Your task to perform on an android device: Empty the shopping cart on bestbuy.com. Add "macbook pro 13 inch" to the cart on bestbuy.com Image 0: 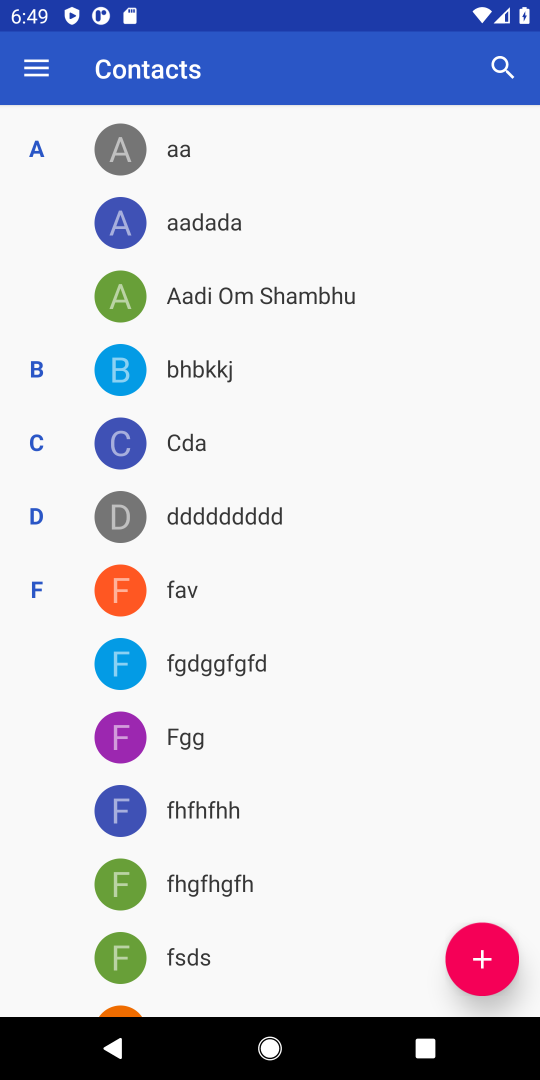
Step 0: press home button
Your task to perform on an android device: Empty the shopping cart on bestbuy.com. Add "macbook pro 13 inch" to the cart on bestbuy.com Image 1: 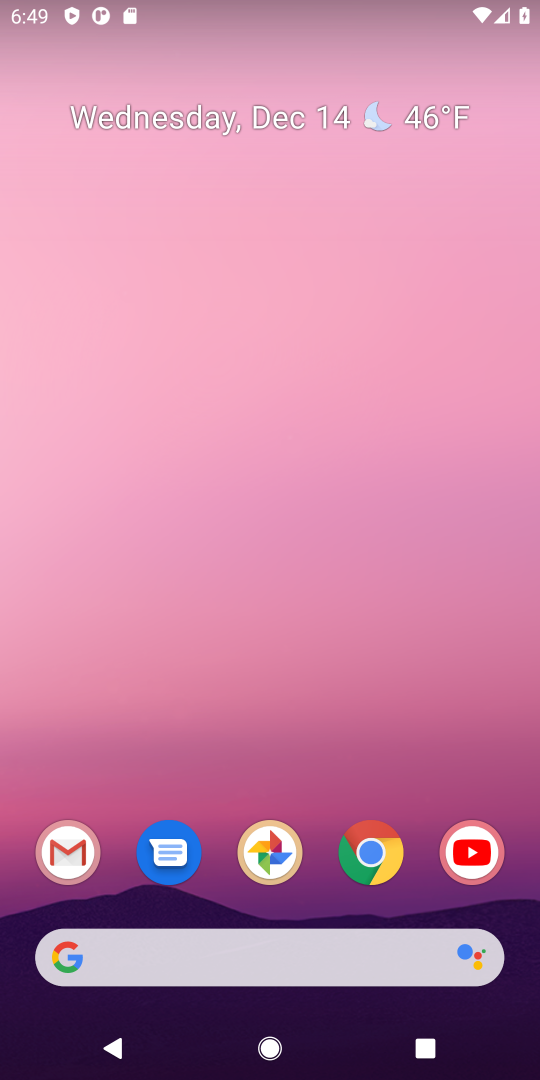
Step 1: click (366, 863)
Your task to perform on an android device: Empty the shopping cart on bestbuy.com. Add "macbook pro 13 inch" to the cart on bestbuy.com Image 2: 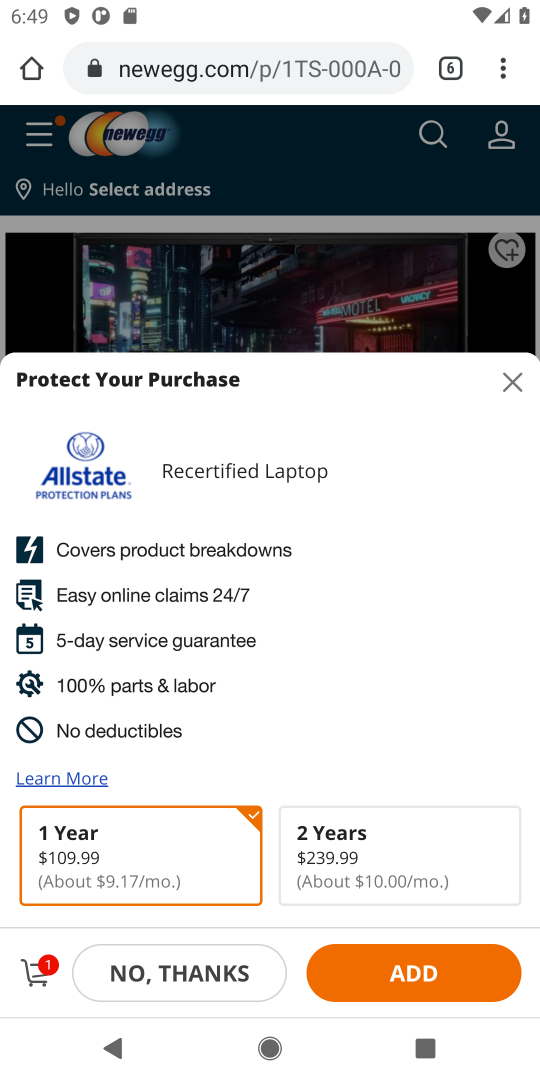
Step 2: click (459, 64)
Your task to perform on an android device: Empty the shopping cart on bestbuy.com. Add "macbook pro 13 inch" to the cart on bestbuy.com Image 3: 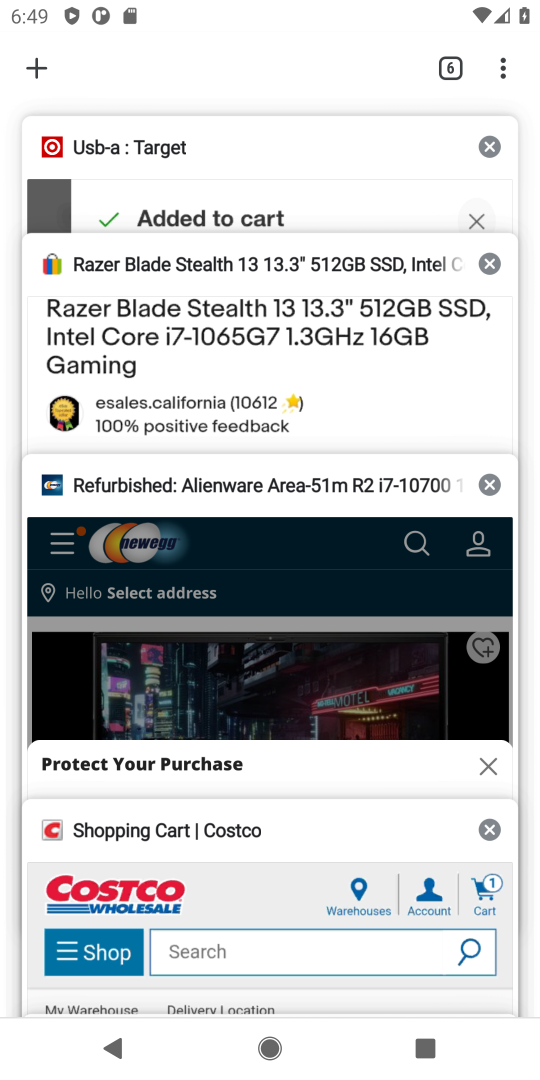
Step 3: click (43, 75)
Your task to perform on an android device: Empty the shopping cart on bestbuy.com. Add "macbook pro 13 inch" to the cart on bestbuy.com Image 4: 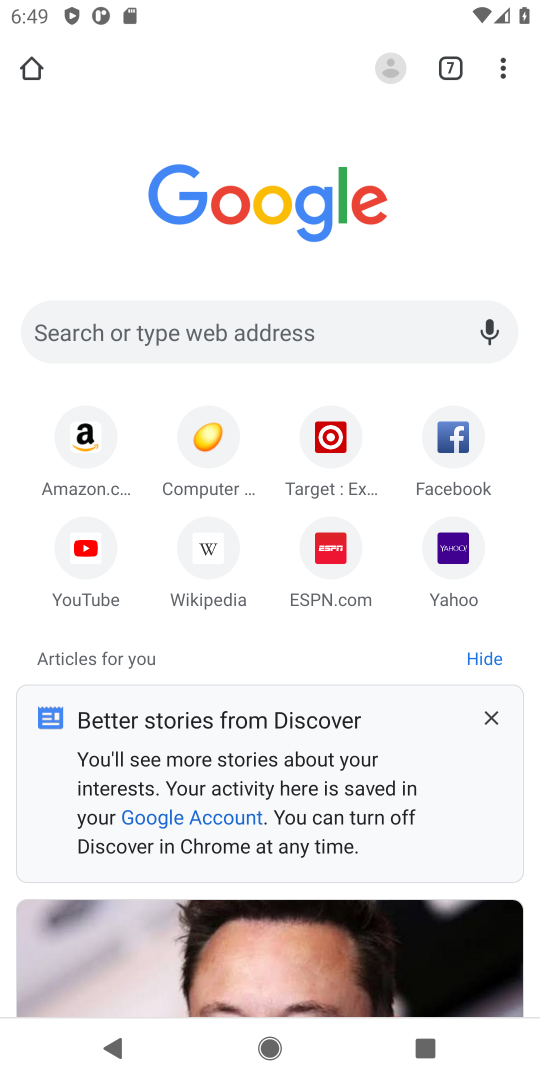
Step 4: click (285, 323)
Your task to perform on an android device: Empty the shopping cart on bestbuy.com. Add "macbook pro 13 inch" to the cart on bestbuy.com Image 5: 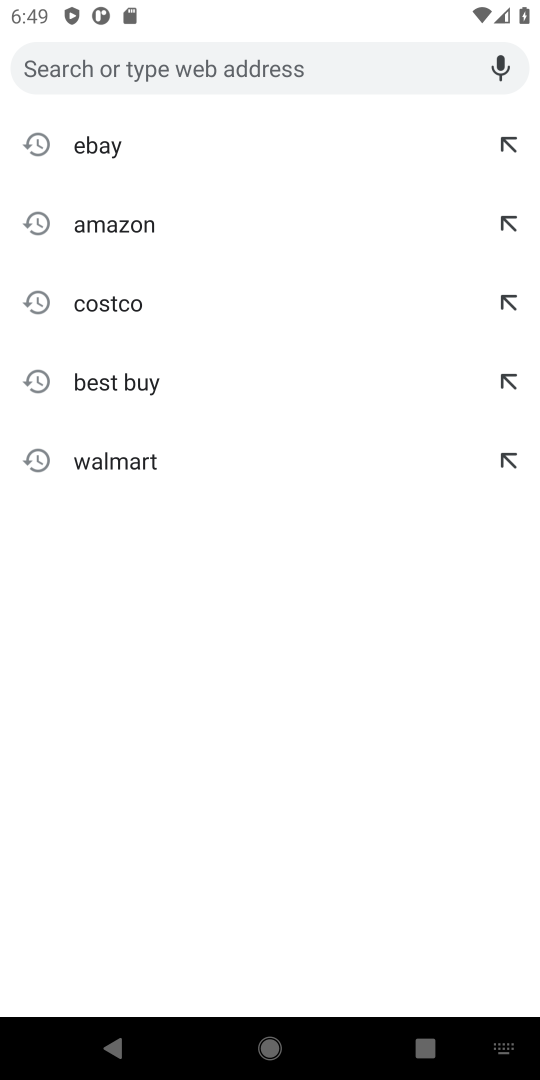
Step 5: click (113, 392)
Your task to perform on an android device: Empty the shopping cart on bestbuy.com. Add "macbook pro 13 inch" to the cart on bestbuy.com Image 6: 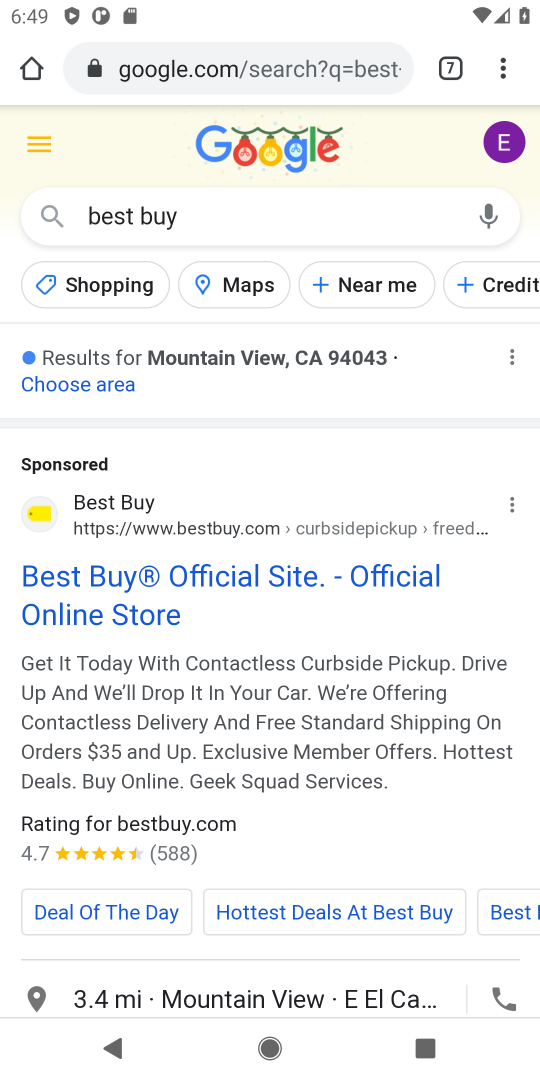
Step 6: click (114, 587)
Your task to perform on an android device: Empty the shopping cart on bestbuy.com. Add "macbook pro 13 inch" to the cart on bestbuy.com Image 7: 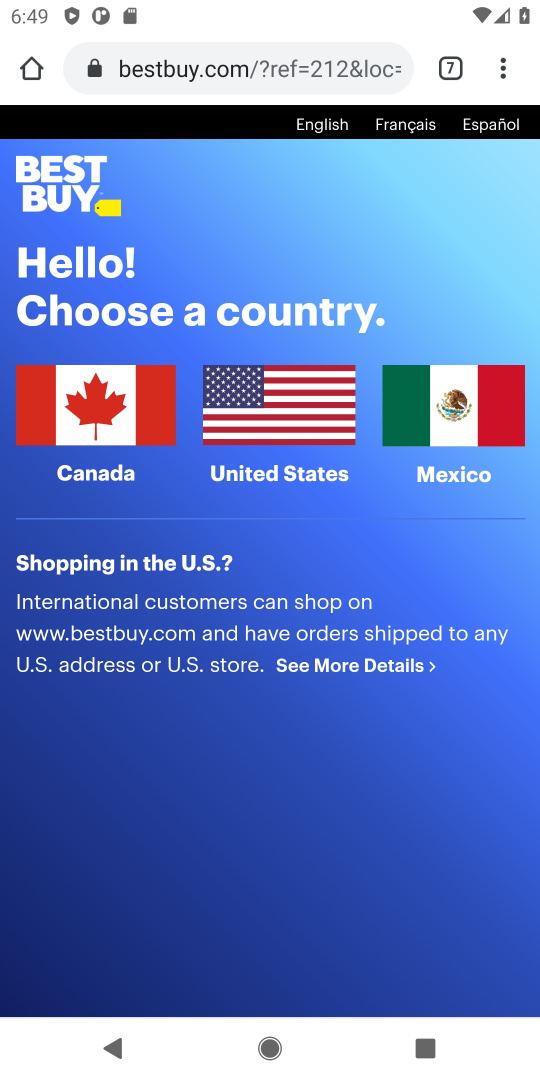
Step 7: click (279, 416)
Your task to perform on an android device: Empty the shopping cart on bestbuy.com. Add "macbook pro 13 inch" to the cart on bestbuy.com Image 8: 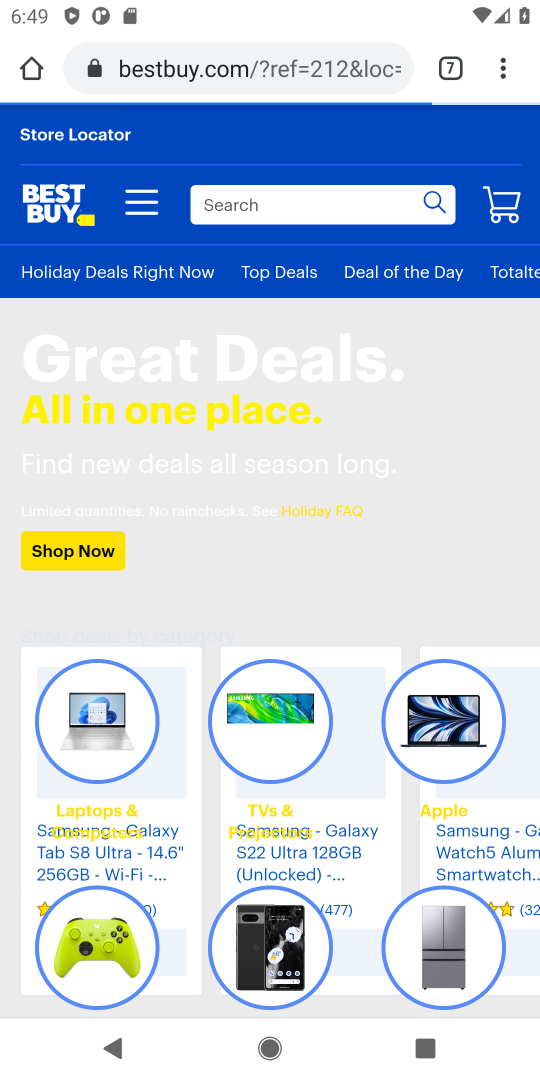
Step 8: click (254, 208)
Your task to perform on an android device: Empty the shopping cart on bestbuy.com. Add "macbook pro 13 inch" to the cart on bestbuy.com Image 9: 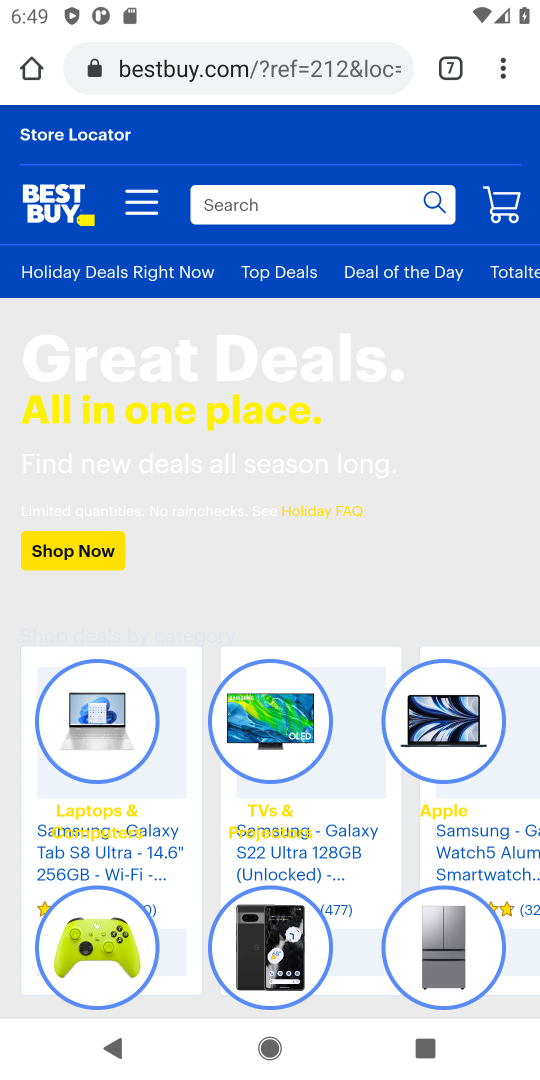
Step 9: type "macbook pro 13 inch"
Your task to perform on an android device: Empty the shopping cart on bestbuy.com. Add "macbook pro 13 inch" to the cart on bestbuy.com Image 10: 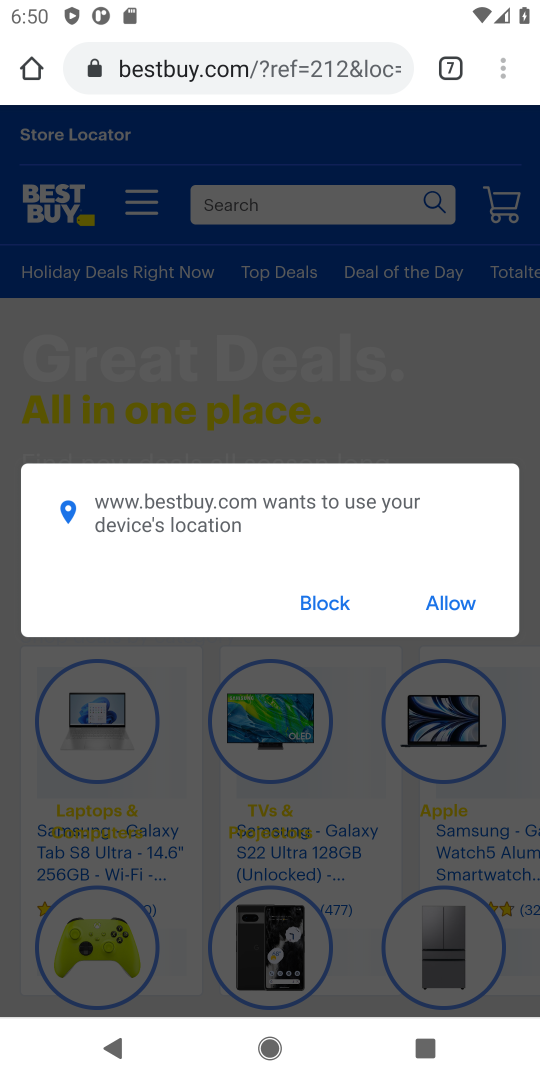
Step 10: click (330, 605)
Your task to perform on an android device: Empty the shopping cart on bestbuy.com. Add "macbook pro 13 inch" to the cart on bestbuy.com Image 11: 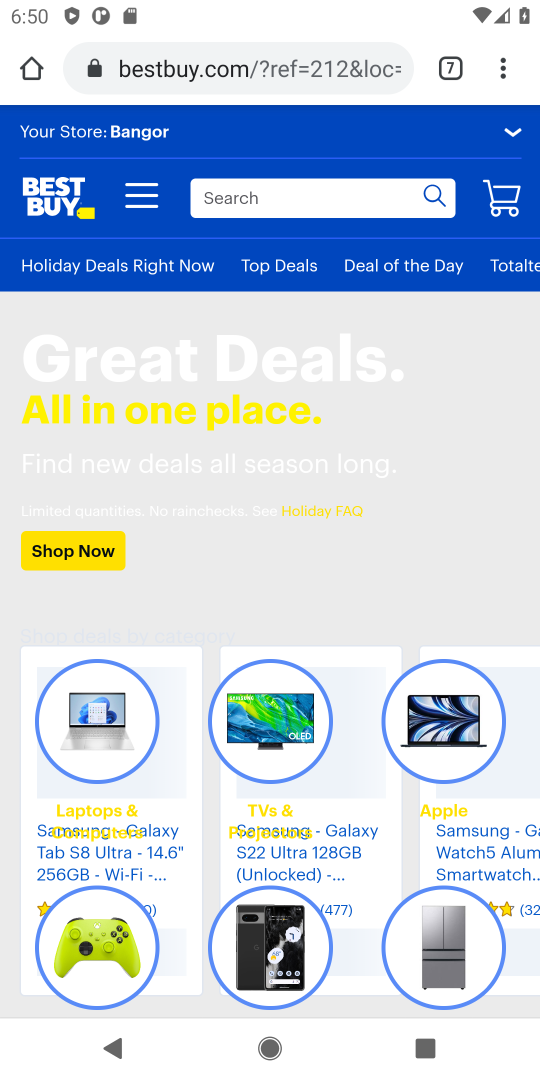
Step 11: click (349, 213)
Your task to perform on an android device: Empty the shopping cart on bestbuy.com. Add "macbook pro 13 inch" to the cart on bestbuy.com Image 12: 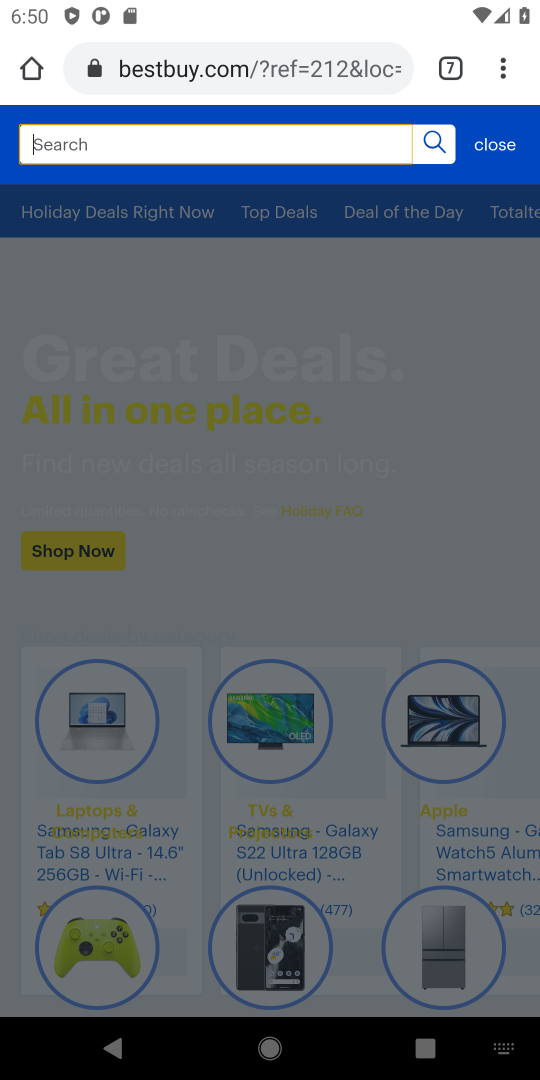
Step 12: type "macbook pro 13 inch"
Your task to perform on an android device: Empty the shopping cart on bestbuy.com. Add "macbook pro 13 inch" to the cart on bestbuy.com Image 13: 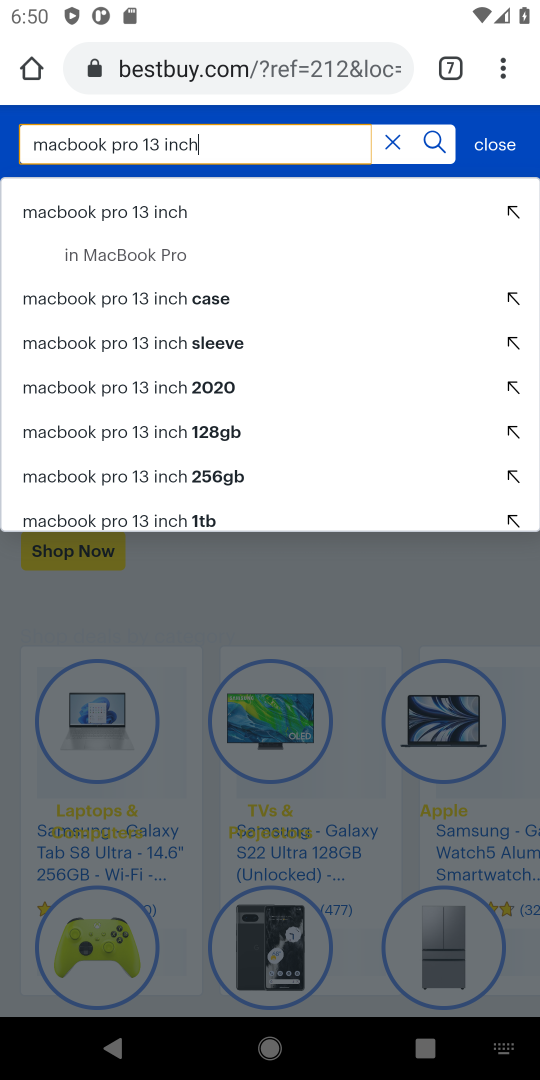
Step 13: click (87, 216)
Your task to perform on an android device: Empty the shopping cart on bestbuy.com. Add "macbook pro 13 inch" to the cart on bestbuy.com Image 14: 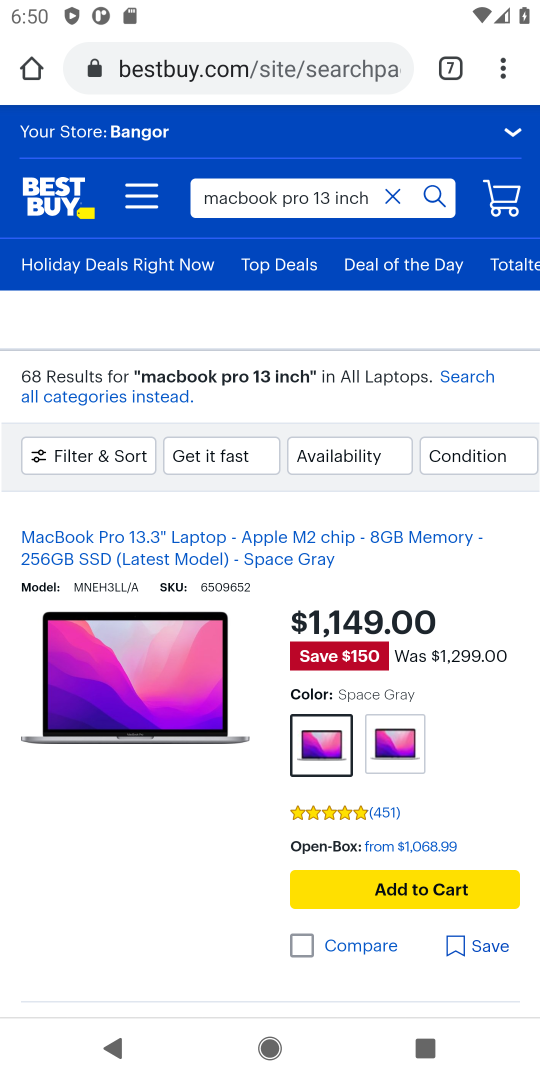
Step 14: click (416, 947)
Your task to perform on an android device: Empty the shopping cart on bestbuy.com. Add "macbook pro 13 inch" to the cart on bestbuy.com Image 15: 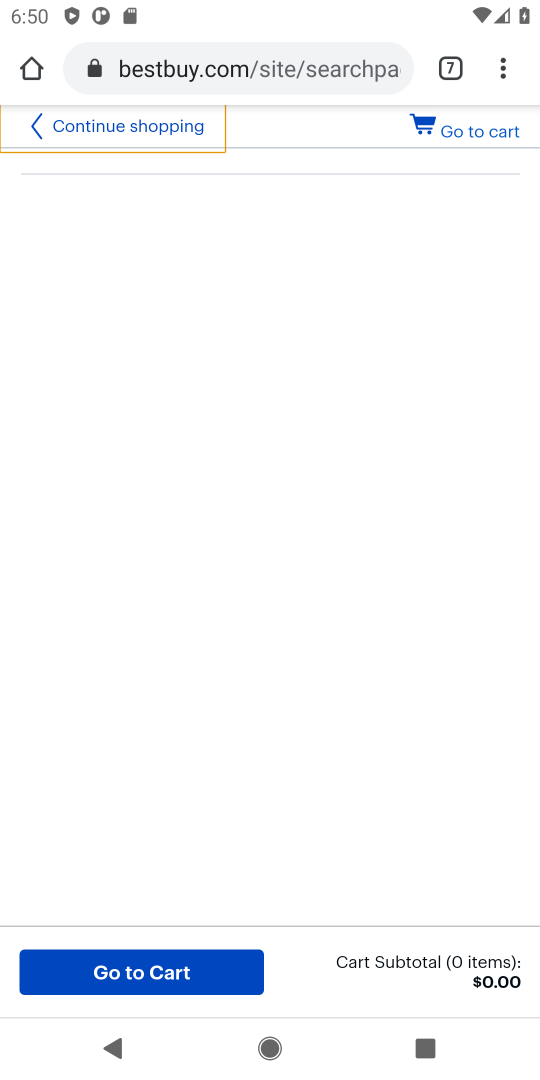
Step 15: task complete